Your task to perform on an android device: Search for "amazon basics triple a" on target, select the first entry, and add it to the cart. Image 0: 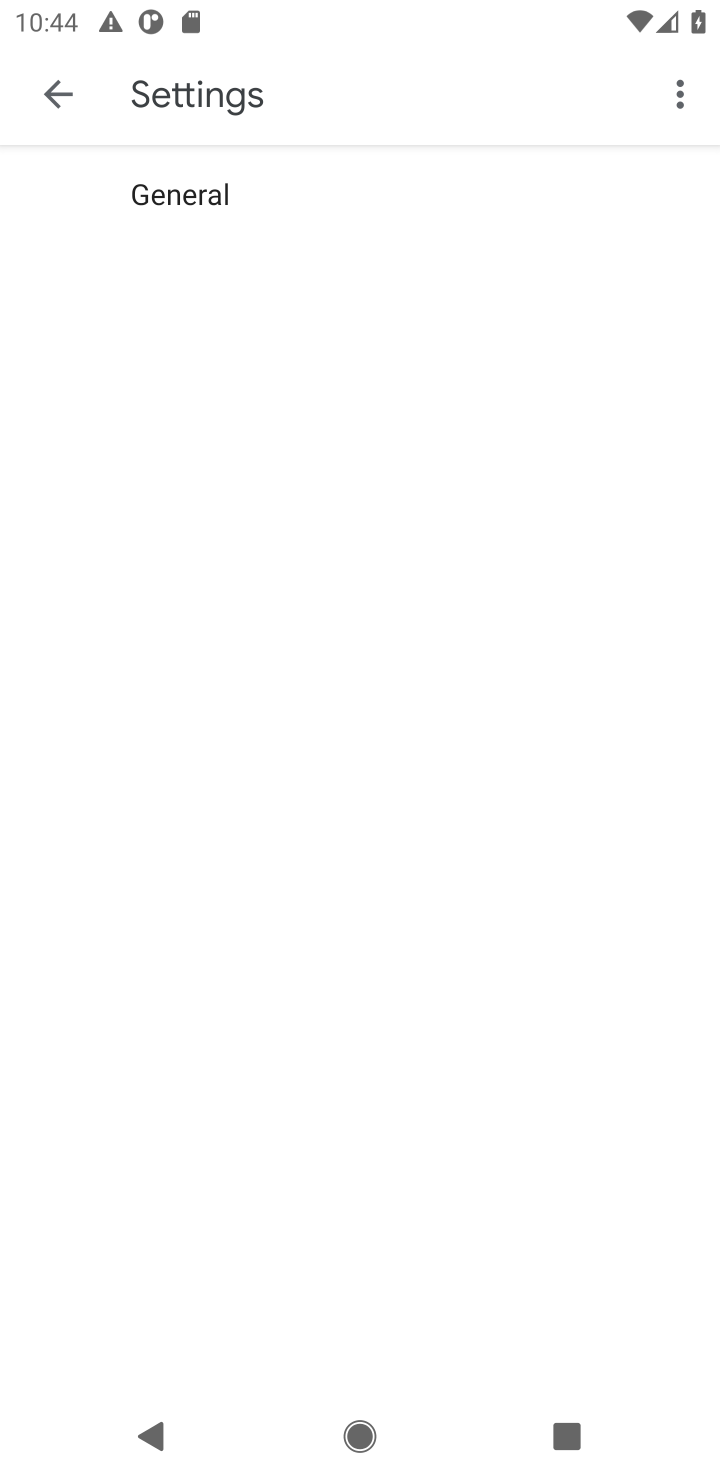
Step 0: press home button
Your task to perform on an android device: Search for "amazon basics triple a" on target, select the first entry, and add it to the cart. Image 1: 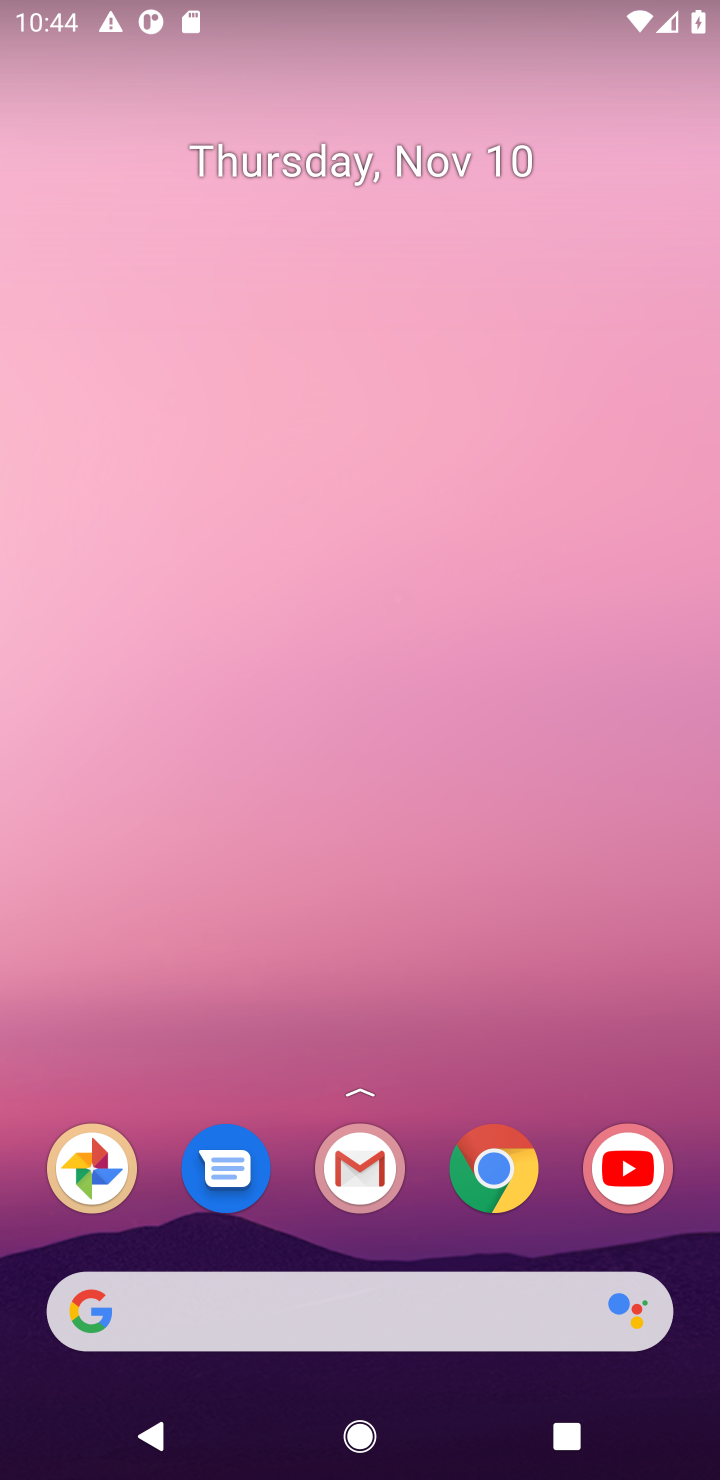
Step 1: click (494, 1163)
Your task to perform on an android device: Search for "amazon basics triple a" on target, select the first entry, and add it to the cart. Image 2: 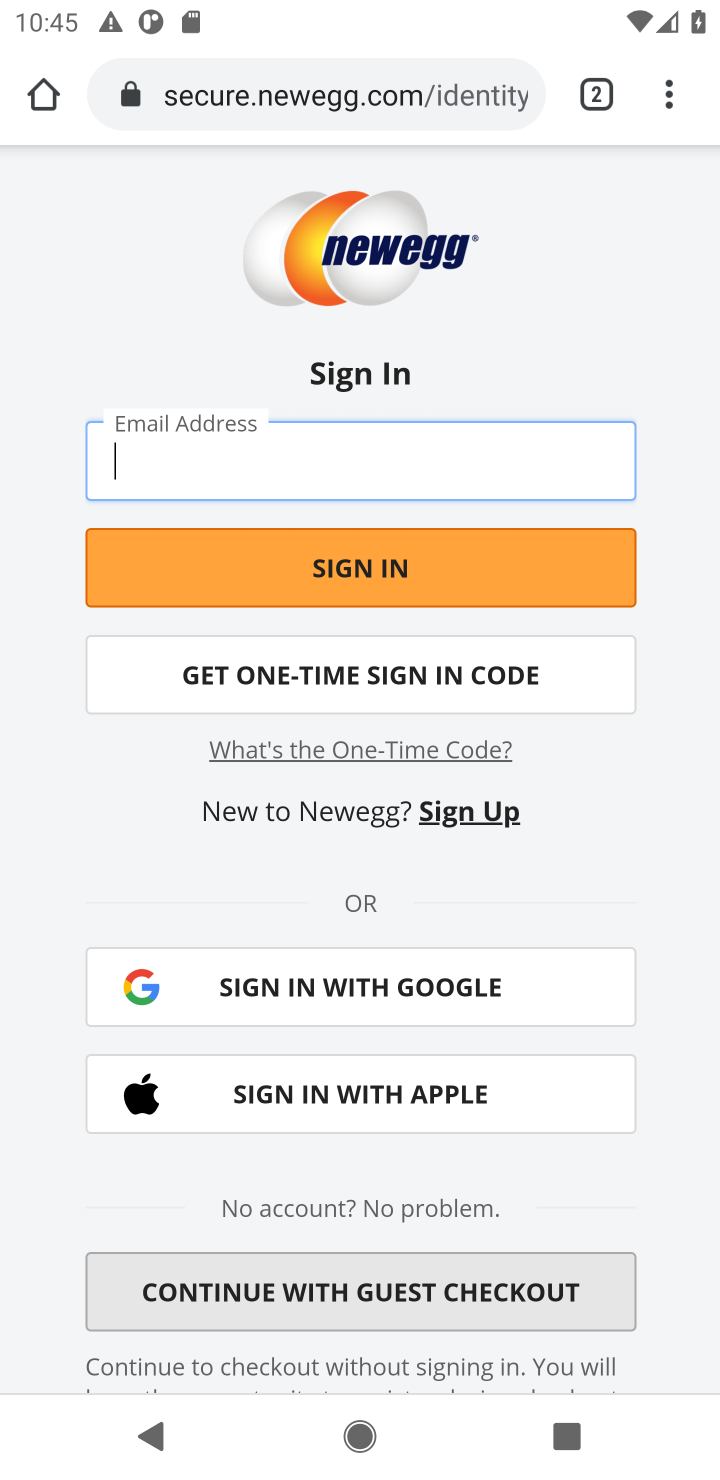
Step 2: click (278, 97)
Your task to perform on an android device: Search for "amazon basics triple a" on target, select the first entry, and add it to the cart. Image 3: 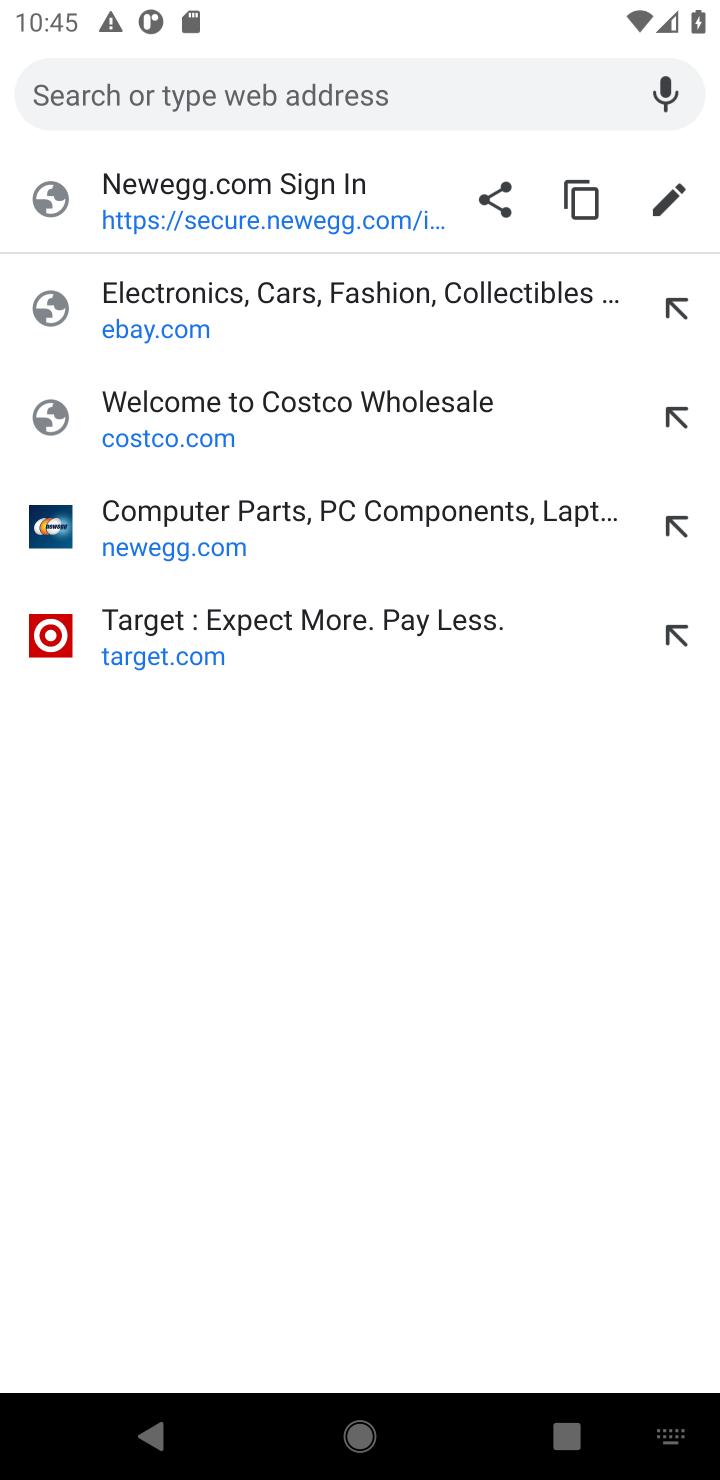
Step 3: click (203, 637)
Your task to perform on an android device: Search for "amazon basics triple a" on target, select the first entry, and add it to the cart. Image 4: 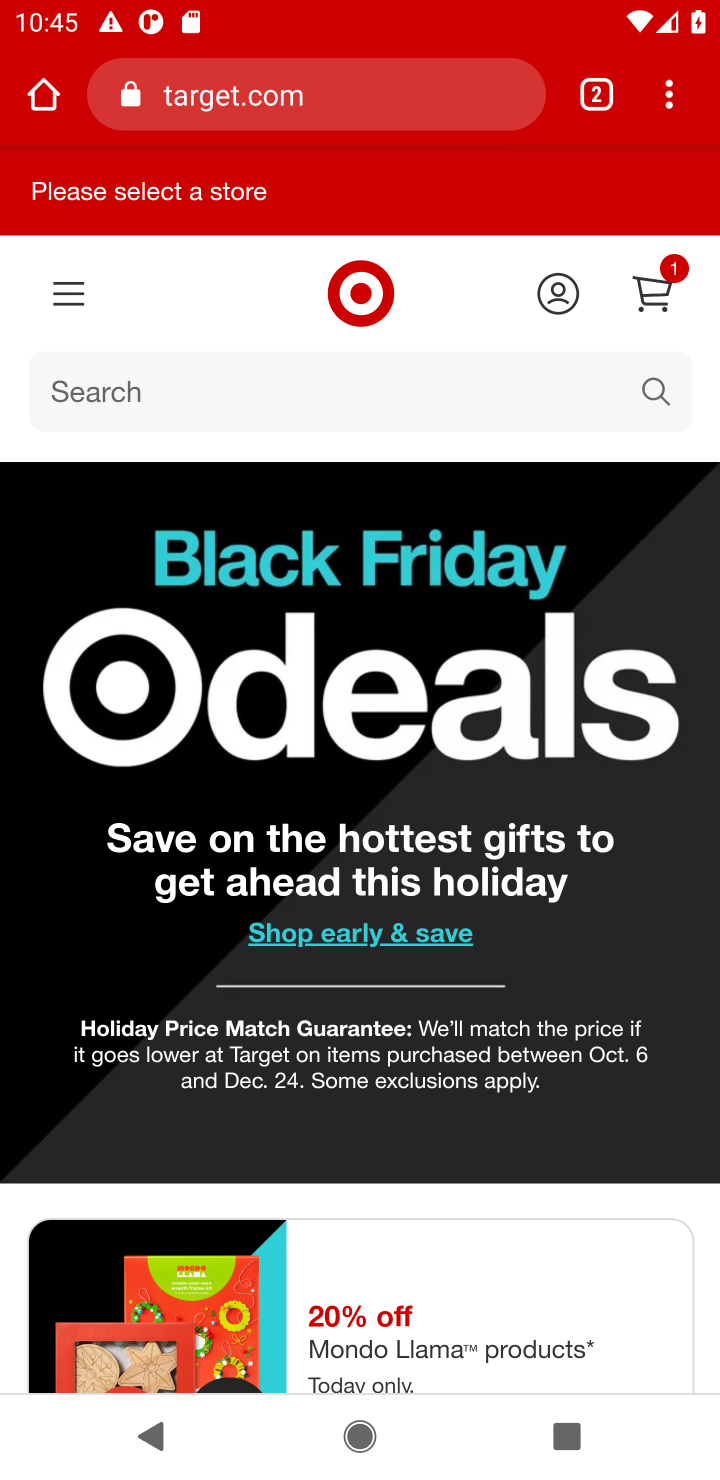
Step 4: click (650, 384)
Your task to perform on an android device: Search for "amazon basics triple a" on target, select the first entry, and add it to the cart. Image 5: 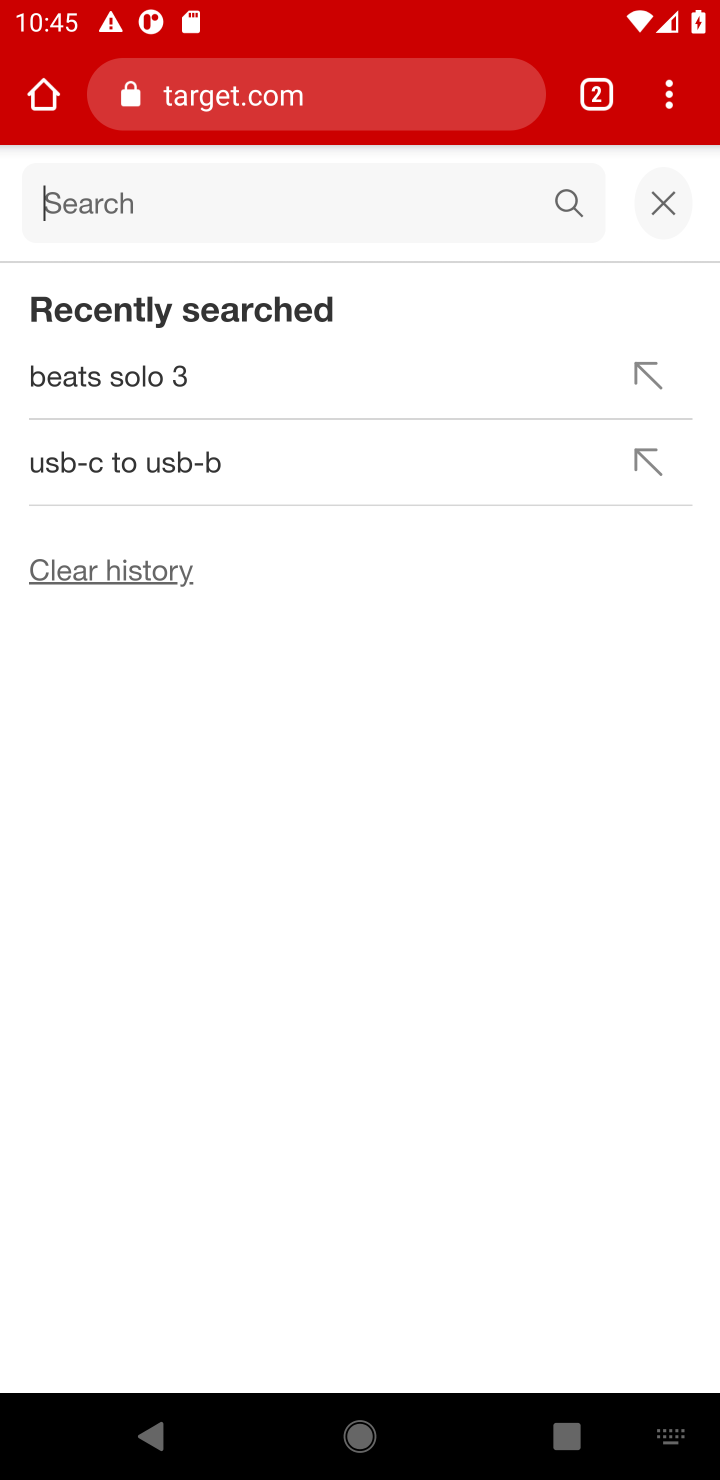
Step 5: type "amazon basics triple a"
Your task to perform on an android device: Search for "amazon basics triple a" on target, select the first entry, and add it to the cart. Image 6: 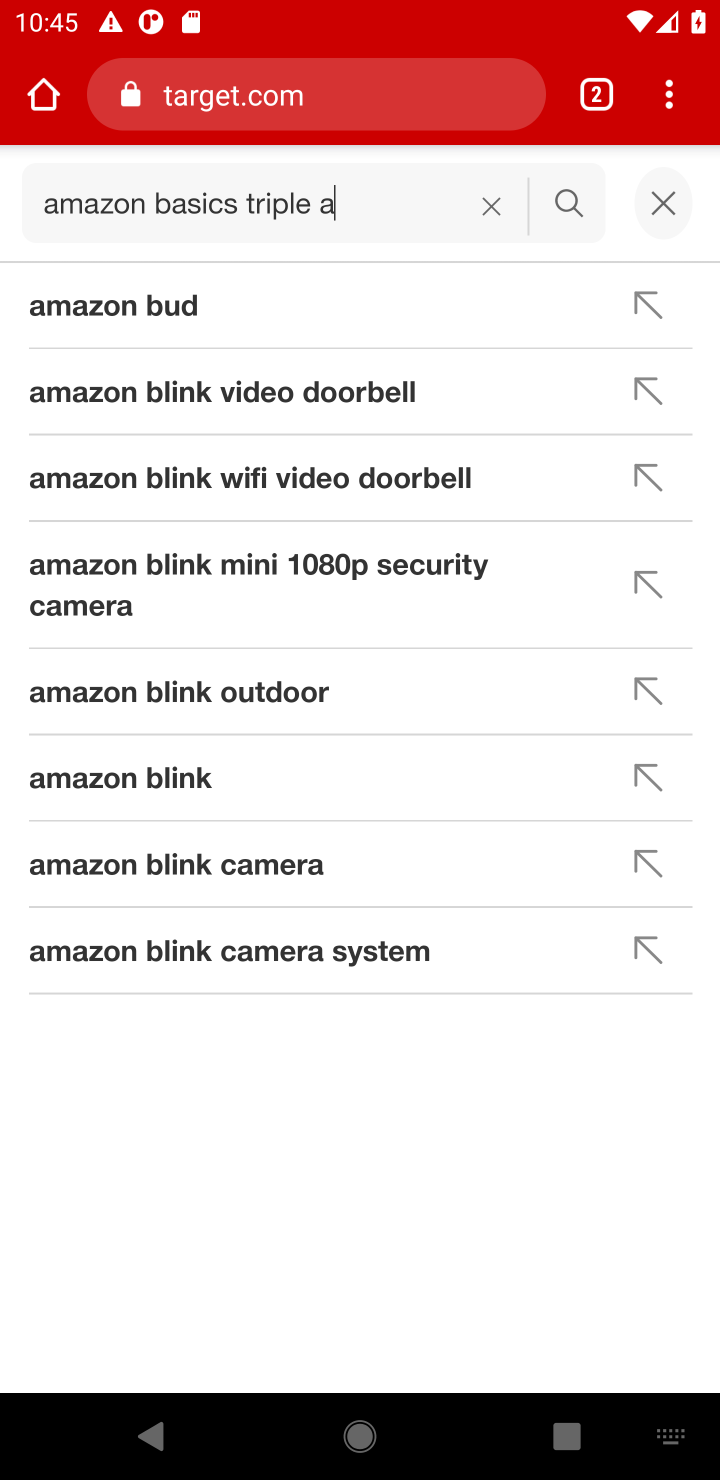
Step 6: click (569, 205)
Your task to perform on an android device: Search for "amazon basics triple a" on target, select the first entry, and add it to the cart. Image 7: 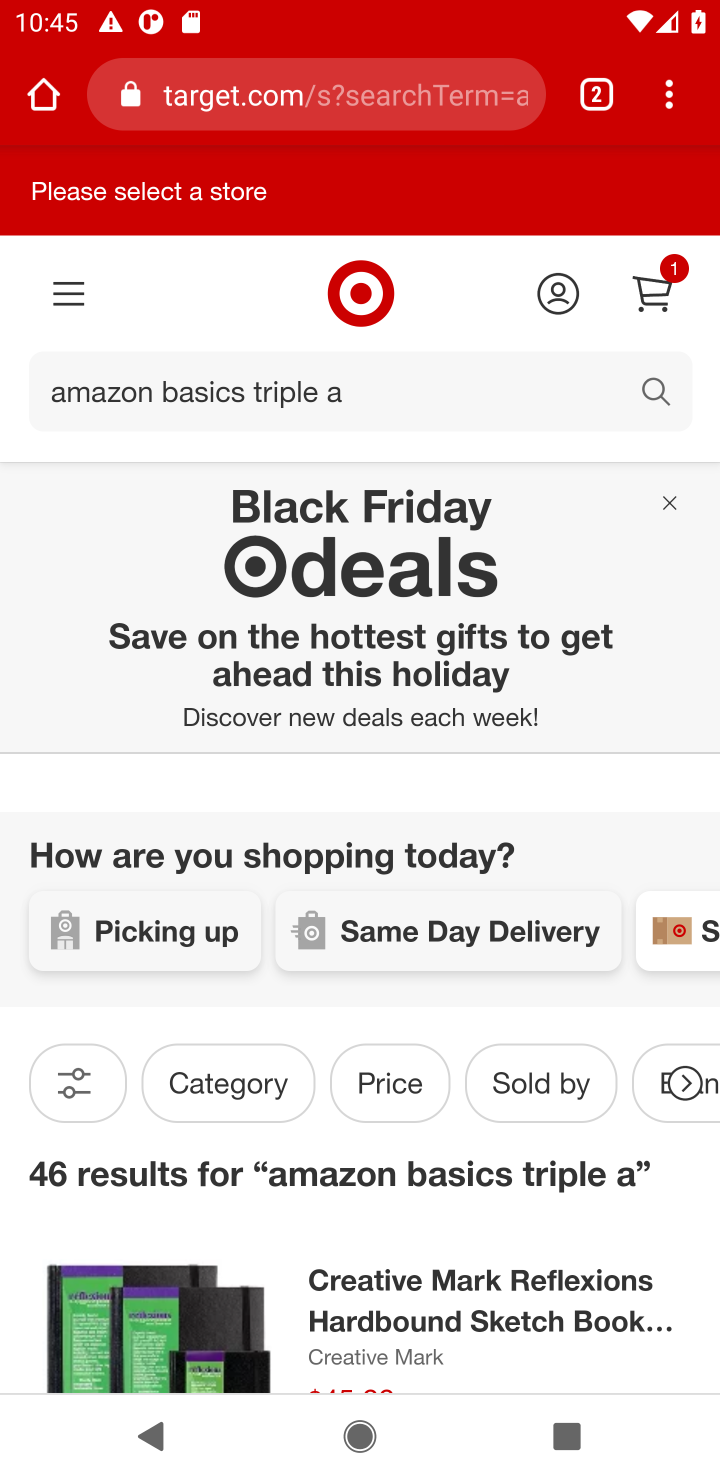
Step 7: task complete